Your task to perform on an android device: Open notification settings Image 0: 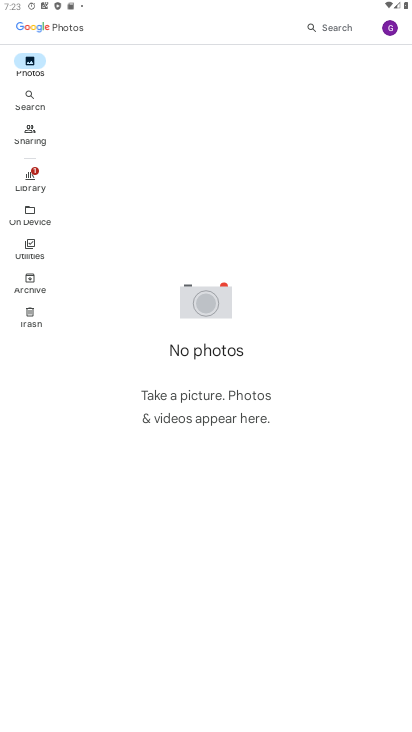
Step 0: press home button
Your task to perform on an android device: Open notification settings Image 1: 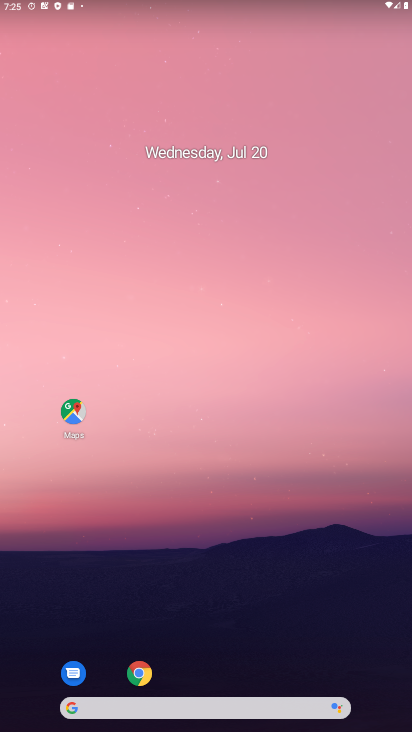
Step 1: drag from (331, 632) to (176, 26)
Your task to perform on an android device: Open notification settings Image 2: 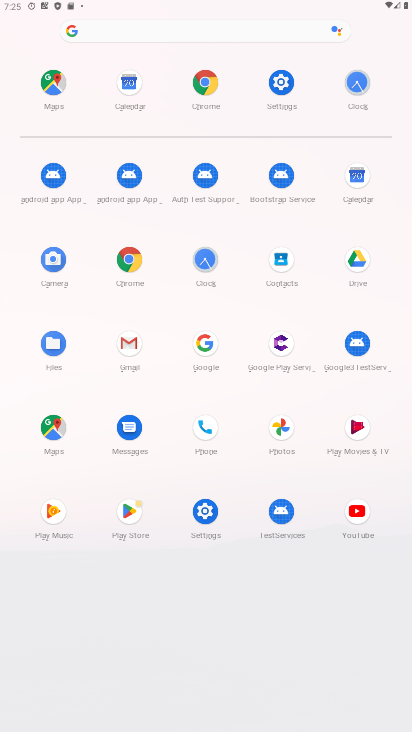
Step 2: click (206, 495)
Your task to perform on an android device: Open notification settings Image 3: 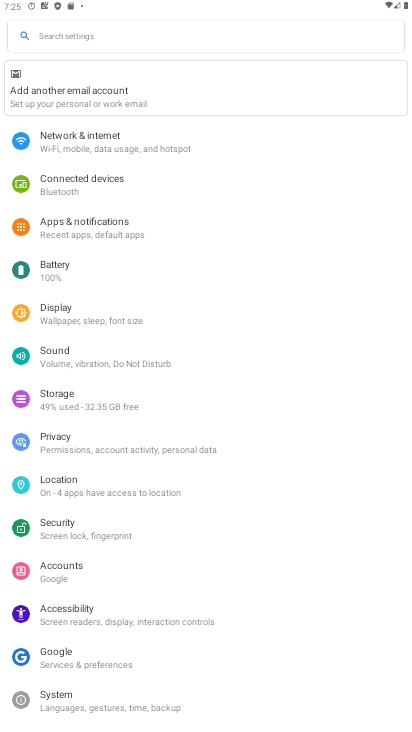
Step 3: click (83, 228)
Your task to perform on an android device: Open notification settings Image 4: 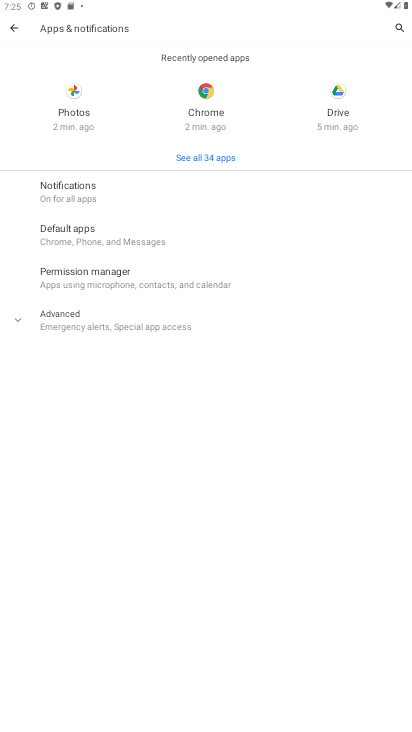
Step 4: click (122, 185)
Your task to perform on an android device: Open notification settings Image 5: 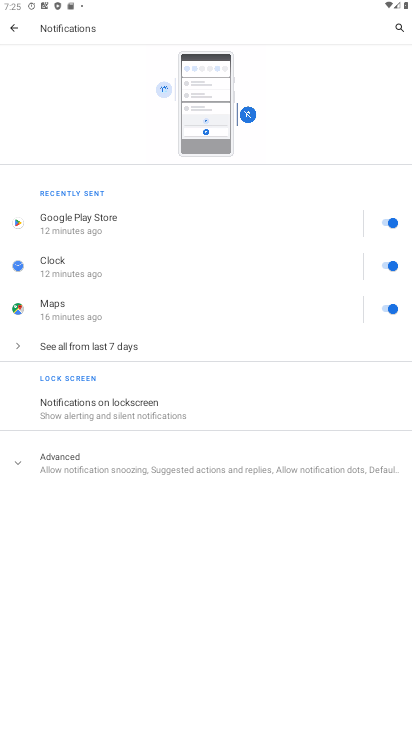
Step 5: task complete